Your task to perform on an android device: turn vacation reply on in the gmail app Image 0: 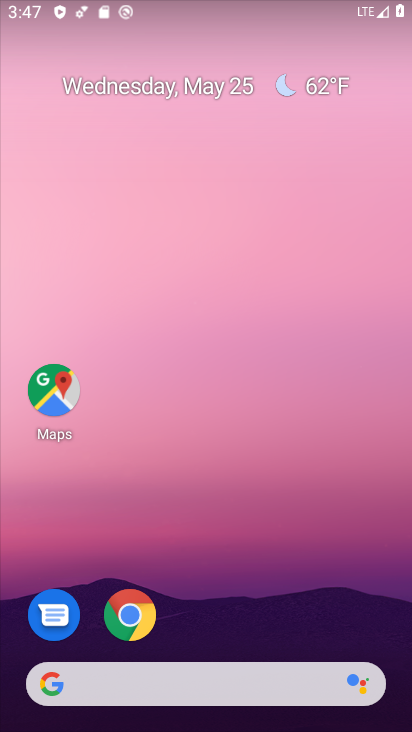
Step 0: drag from (300, 446) to (258, 6)
Your task to perform on an android device: turn vacation reply on in the gmail app Image 1: 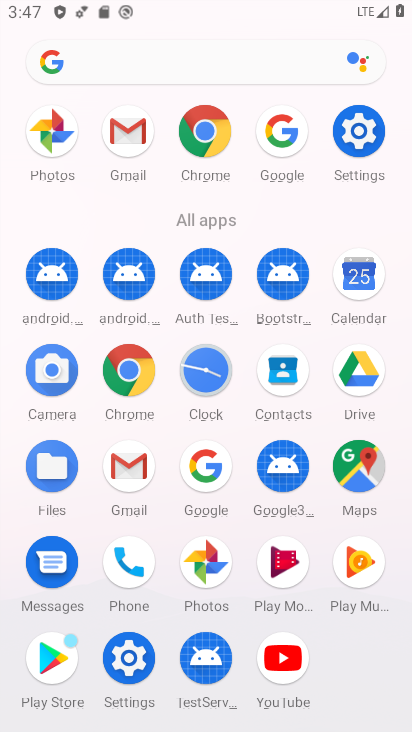
Step 1: click (137, 470)
Your task to perform on an android device: turn vacation reply on in the gmail app Image 2: 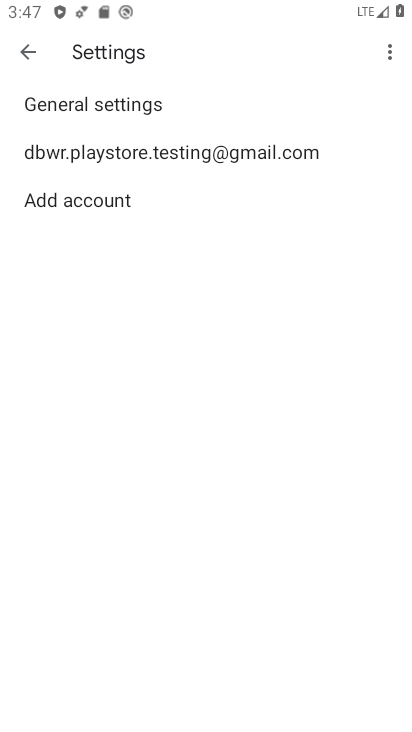
Step 2: click (100, 161)
Your task to perform on an android device: turn vacation reply on in the gmail app Image 3: 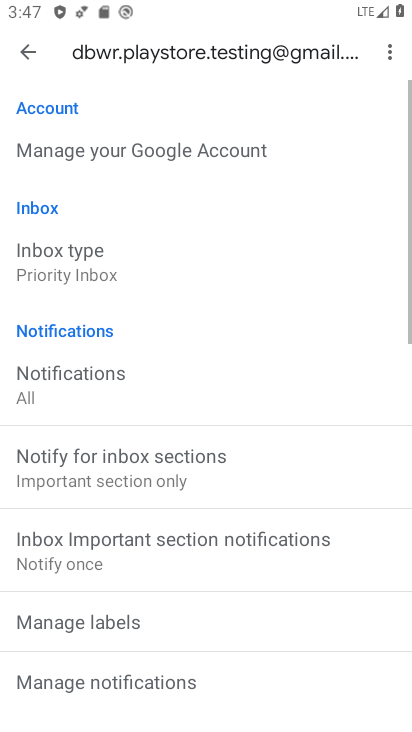
Step 3: drag from (200, 545) to (224, 9)
Your task to perform on an android device: turn vacation reply on in the gmail app Image 4: 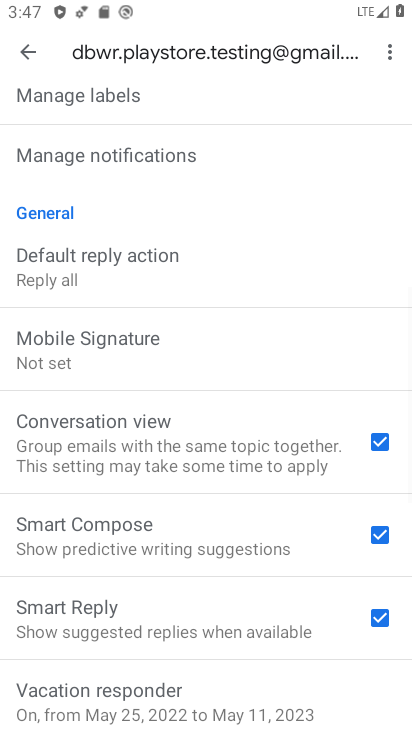
Step 4: drag from (208, 611) to (268, 227)
Your task to perform on an android device: turn vacation reply on in the gmail app Image 5: 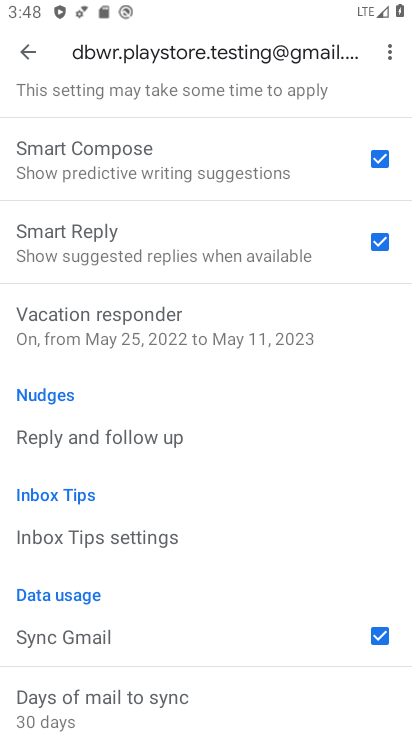
Step 5: click (178, 329)
Your task to perform on an android device: turn vacation reply on in the gmail app Image 6: 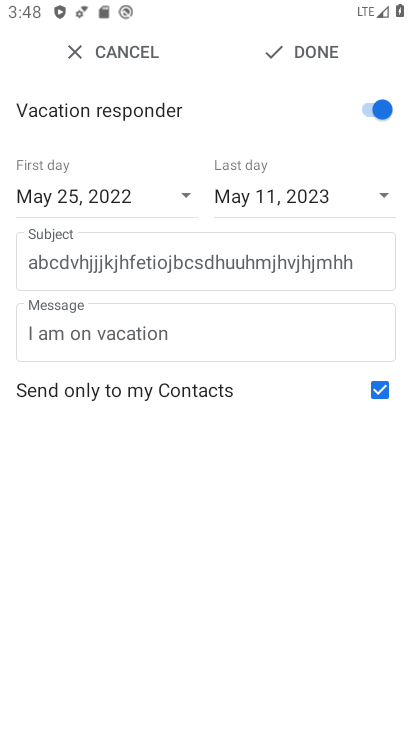
Step 6: click (328, 54)
Your task to perform on an android device: turn vacation reply on in the gmail app Image 7: 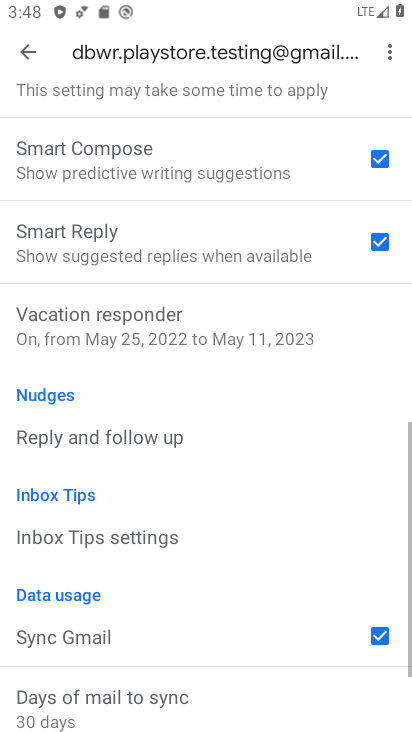
Step 7: task complete